Your task to perform on an android device: Open Reddit.com Image 0: 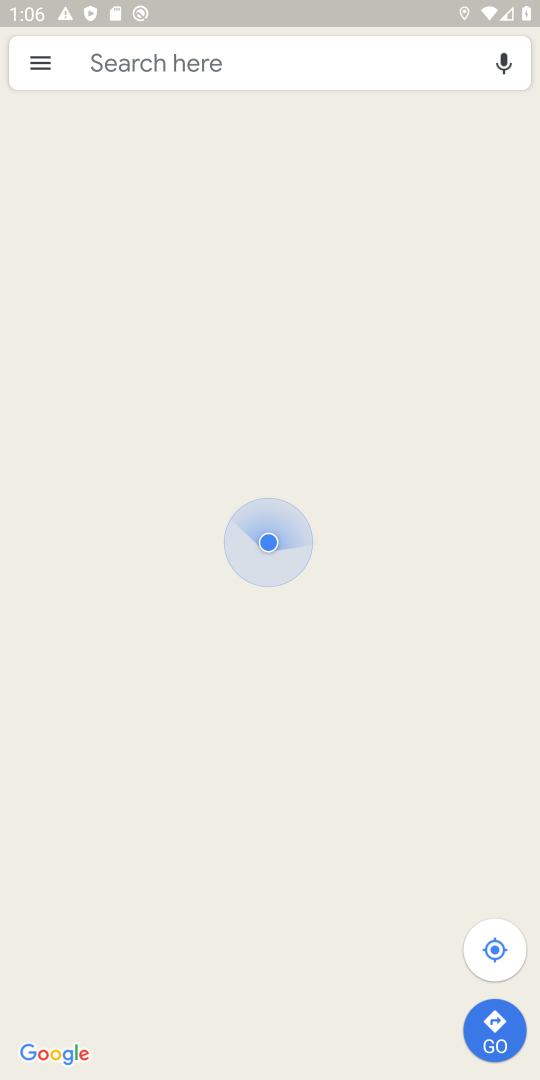
Step 0: press home button
Your task to perform on an android device: Open Reddit.com Image 1: 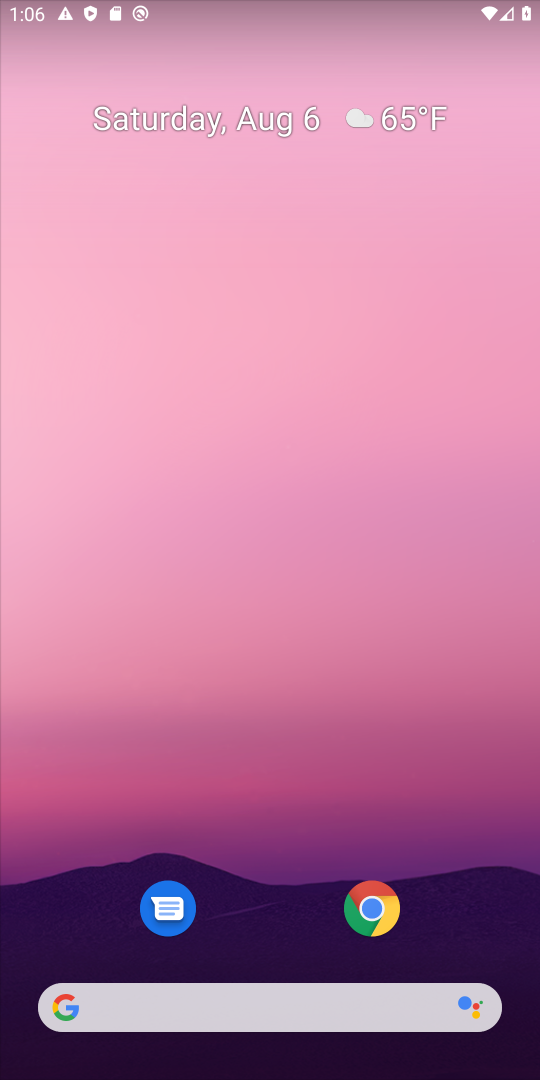
Step 1: click (358, 901)
Your task to perform on an android device: Open Reddit.com Image 2: 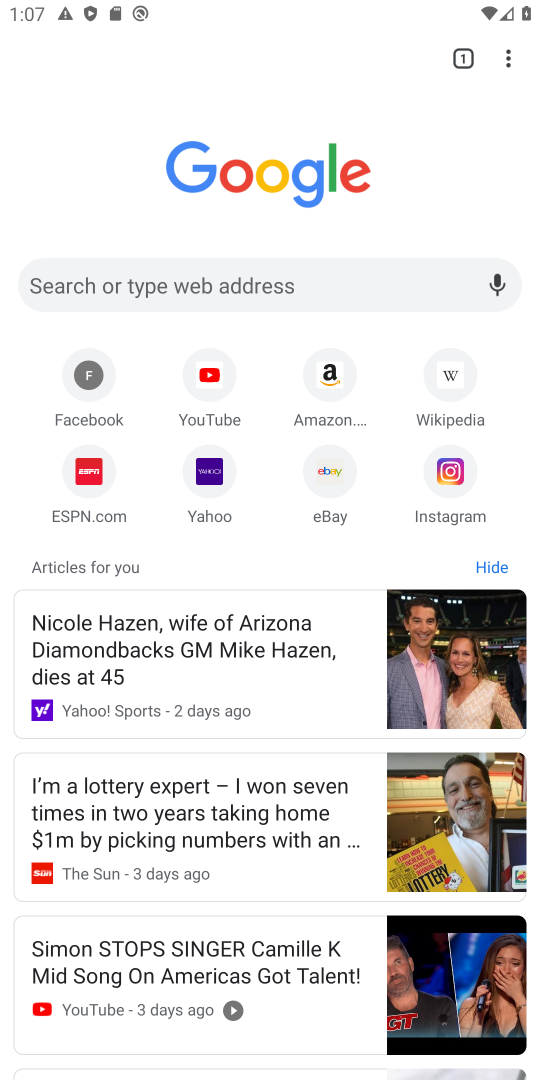
Step 2: click (348, 282)
Your task to perform on an android device: Open Reddit.com Image 3: 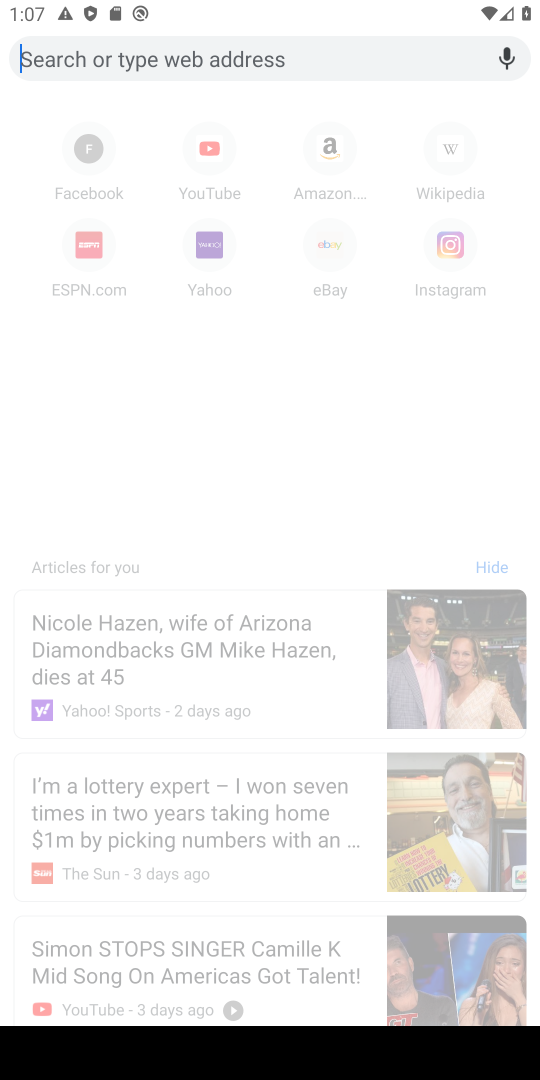
Step 3: type "reddit.com"
Your task to perform on an android device: Open Reddit.com Image 4: 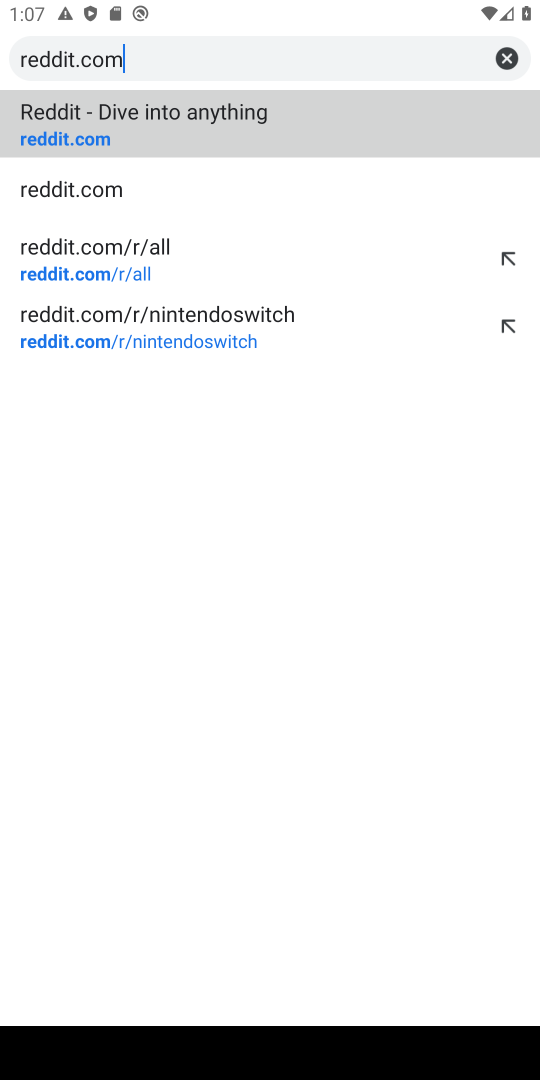
Step 4: click (129, 111)
Your task to perform on an android device: Open Reddit.com Image 5: 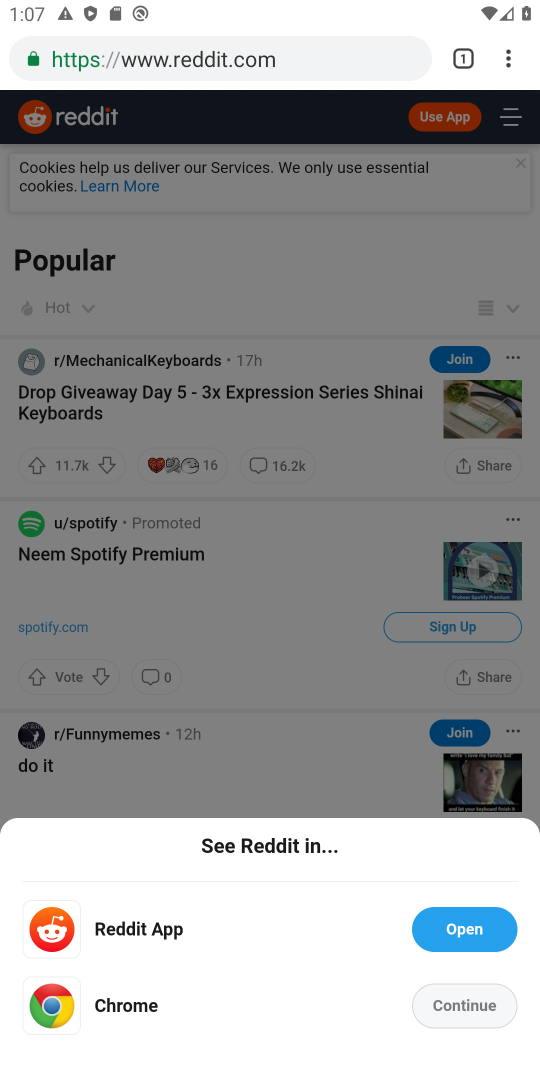
Step 5: task complete